Your task to perform on an android device: Go to privacy settings Image 0: 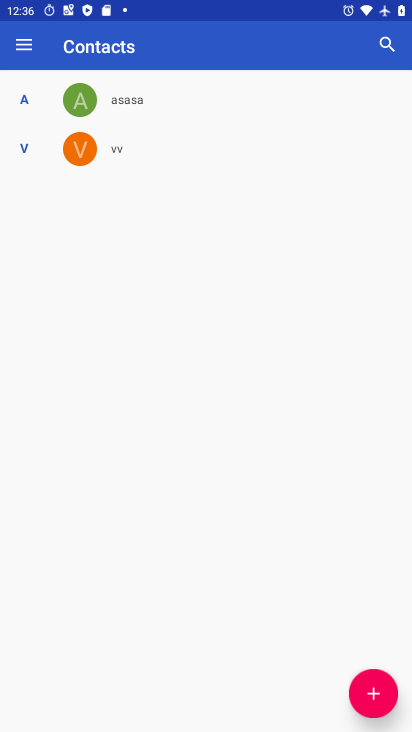
Step 0: press home button
Your task to perform on an android device: Go to privacy settings Image 1: 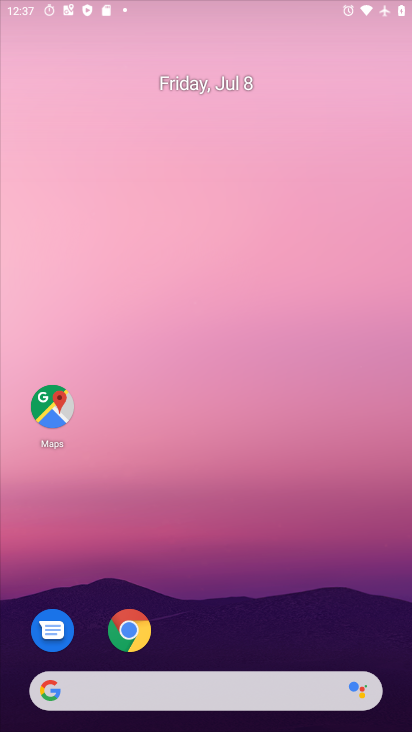
Step 1: drag from (210, 647) to (214, 587)
Your task to perform on an android device: Go to privacy settings Image 2: 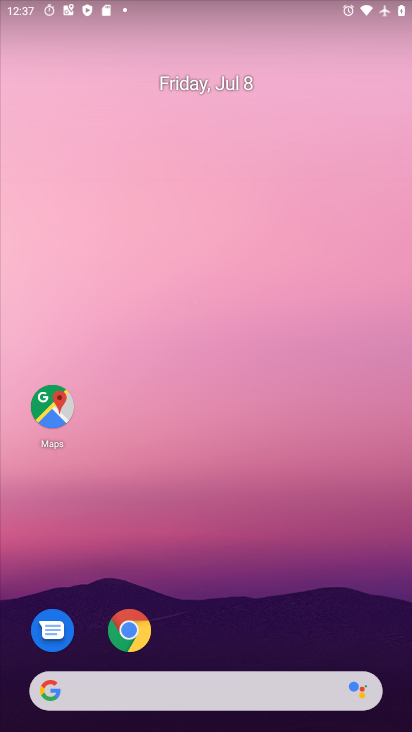
Step 2: drag from (210, 575) to (217, 18)
Your task to perform on an android device: Go to privacy settings Image 3: 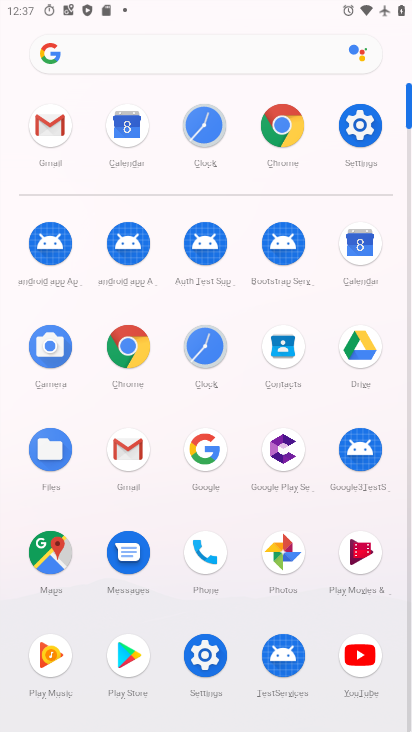
Step 3: click (345, 118)
Your task to perform on an android device: Go to privacy settings Image 4: 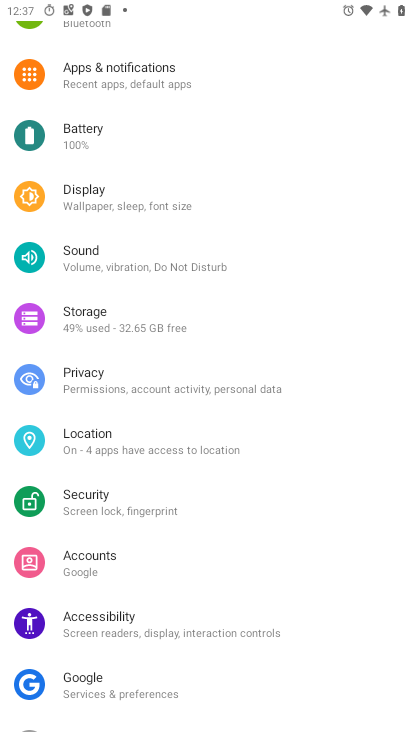
Step 4: click (98, 396)
Your task to perform on an android device: Go to privacy settings Image 5: 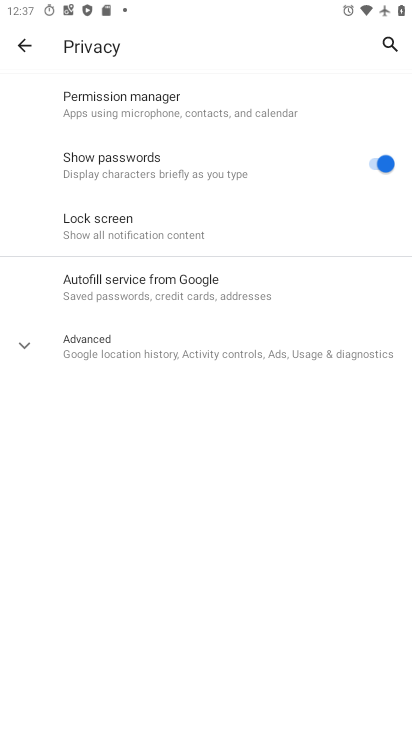
Step 5: task complete